Your task to perform on an android device: Show me recent news Image 0: 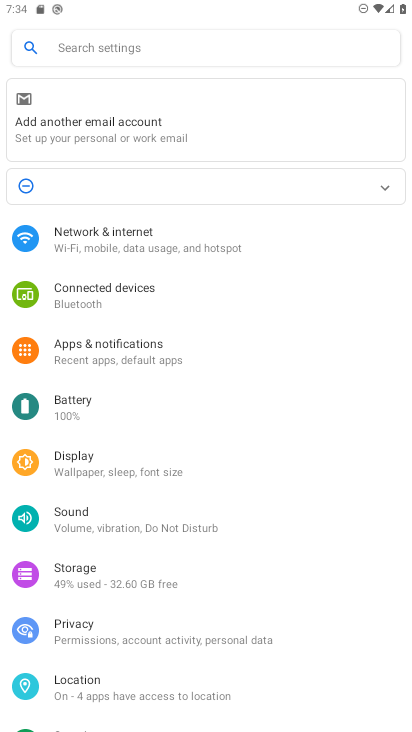
Step 0: press home button
Your task to perform on an android device: Show me recent news Image 1: 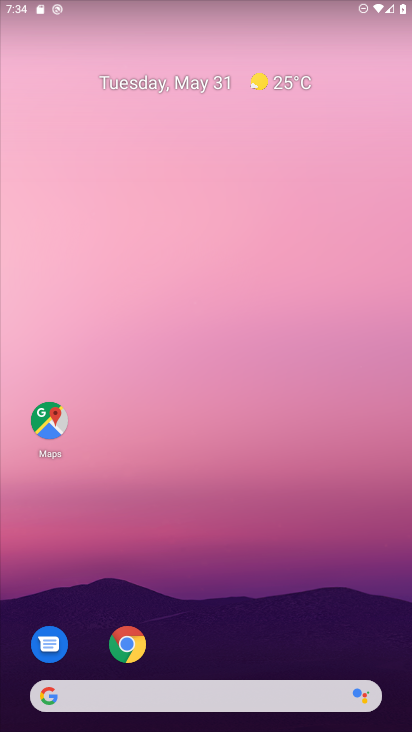
Step 1: drag from (150, 716) to (208, 307)
Your task to perform on an android device: Show me recent news Image 2: 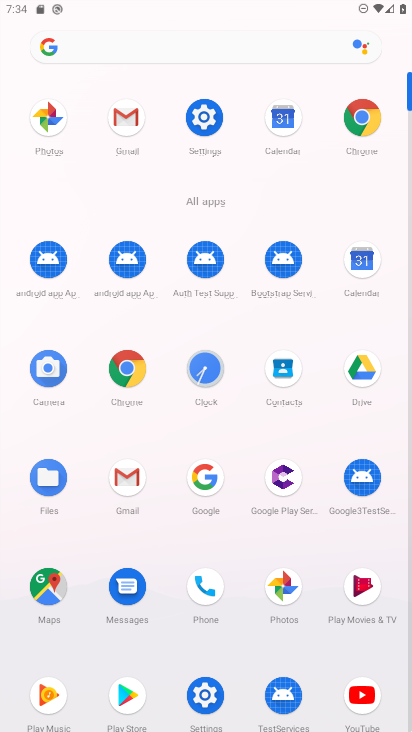
Step 2: click (117, 40)
Your task to perform on an android device: Show me recent news Image 3: 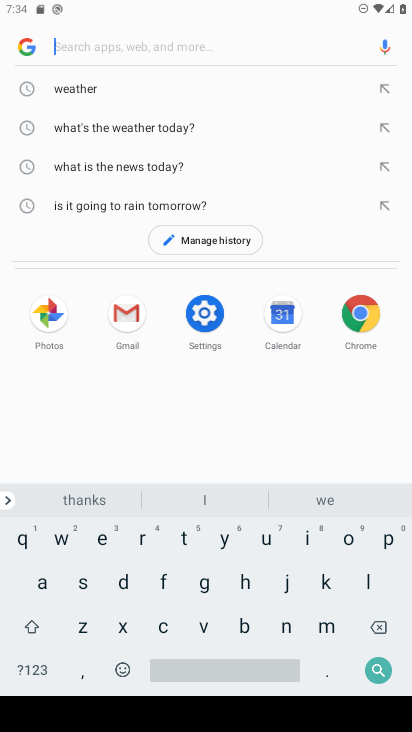
Step 3: click (137, 540)
Your task to perform on an android device: Show me recent news Image 4: 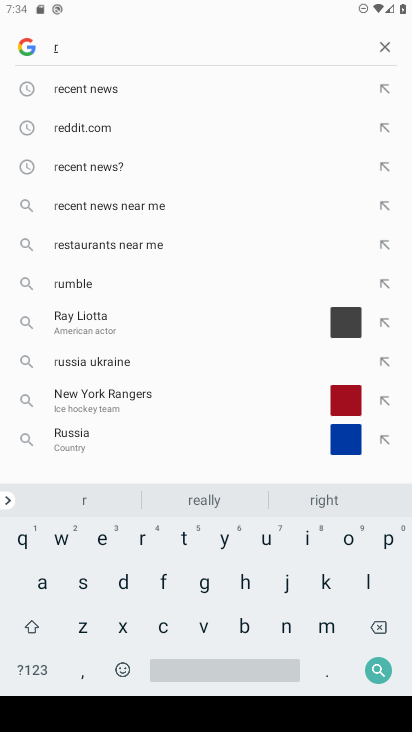
Step 4: click (101, 537)
Your task to perform on an android device: Show me recent news Image 5: 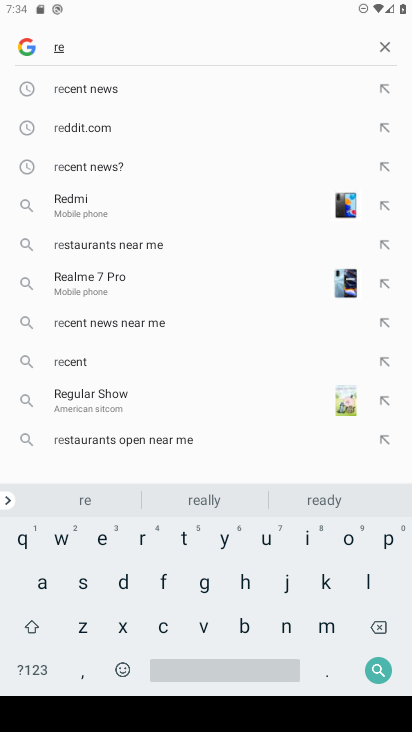
Step 5: click (135, 91)
Your task to perform on an android device: Show me recent news Image 6: 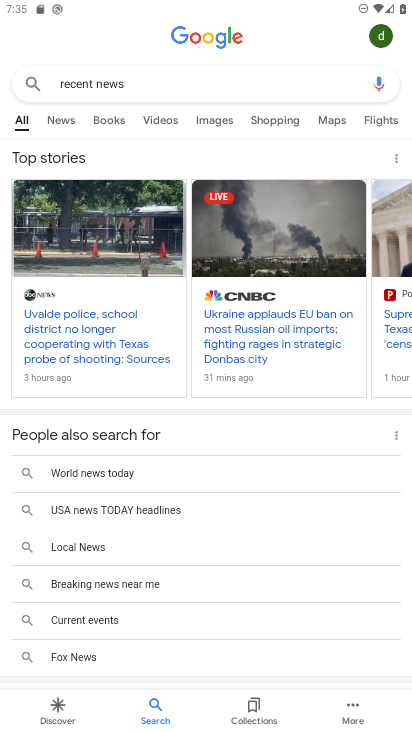
Step 6: task complete